Your task to perform on an android device: Open sound settings Image 0: 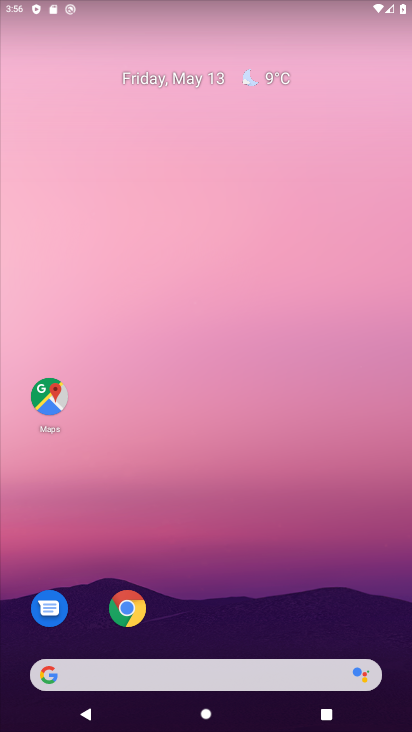
Step 0: drag from (251, 588) to (176, 77)
Your task to perform on an android device: Open sound settings Image 1: 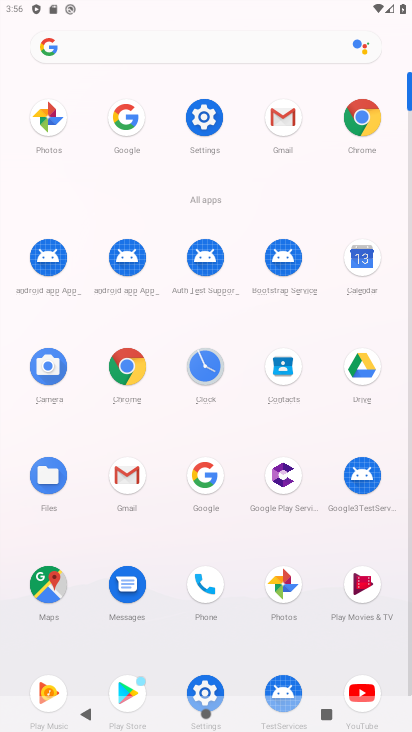
Step 1: click (217, 128)
Your task to perform on an android device: Open sound settings Image 2: 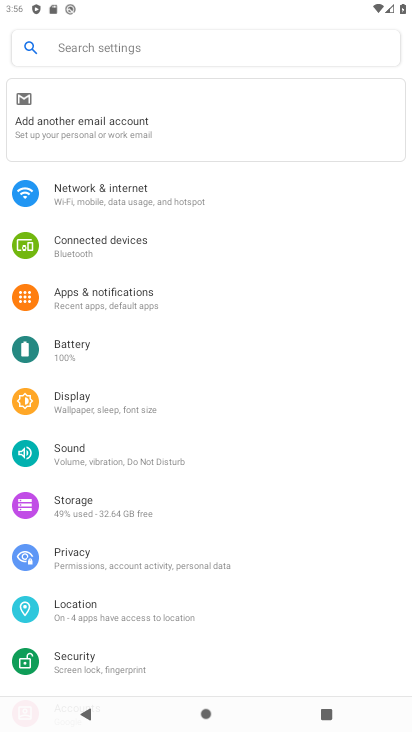
Step 2: click (115, 467)
Your task to perform on an android device: Open sound settings Image 3: 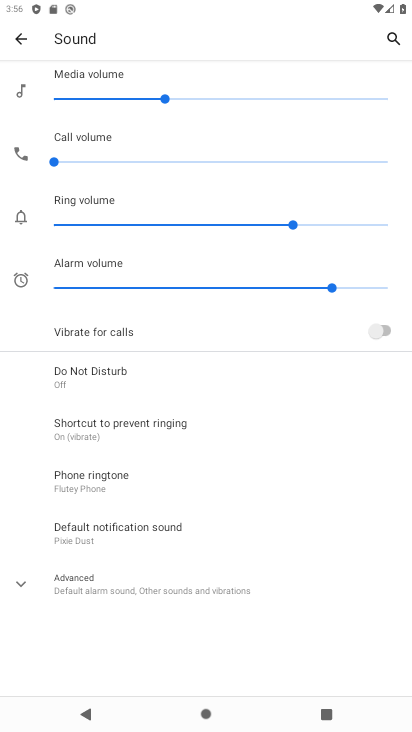
Step 3: task complete